Your task to perform on an android device: allow cookies in the chrome app Image 0: 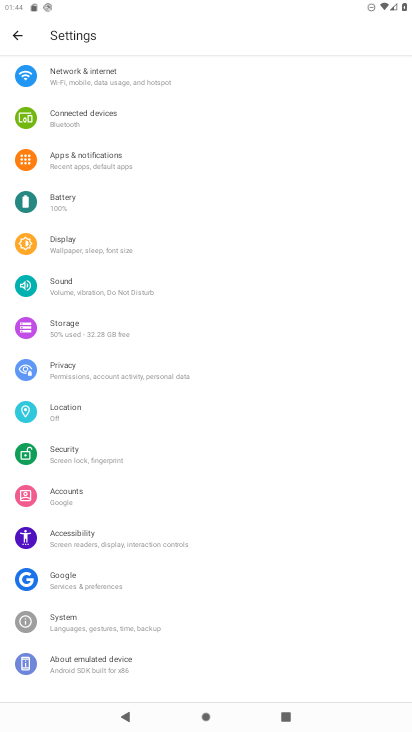
Step 0: click (20, 32)
Your task to perform on an android device: allow cookies in the chrome app Image 1: 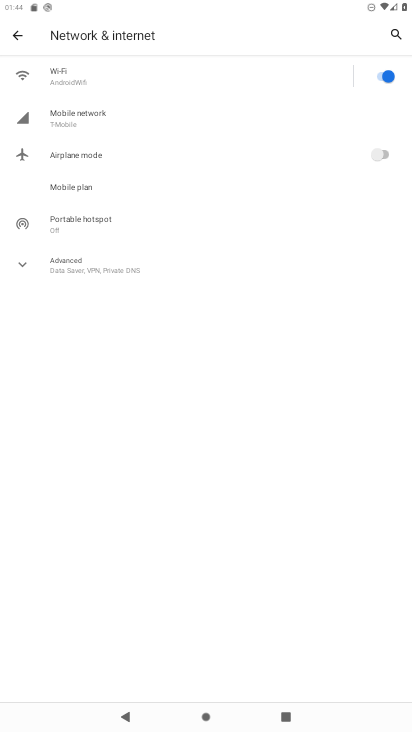
Step 1: click (20, 32)
Your task to perform on an android device: allow cookies in the chrome app Image 2: 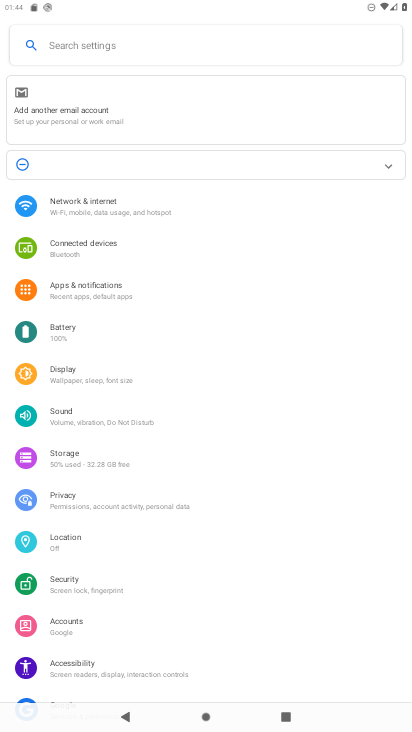
Step 2: click (20, 32)
Your task to perform on an android device: allow cookies in the chrome app Image 3: 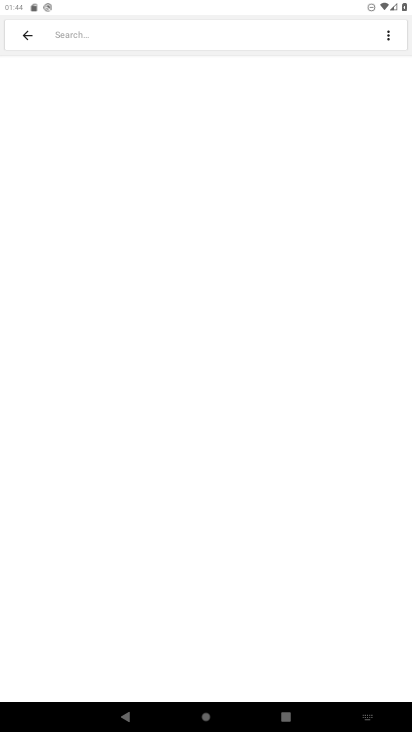
Step 3: press back button
Your task to perform on an android device: allow cookies in the chrome app Image 4: 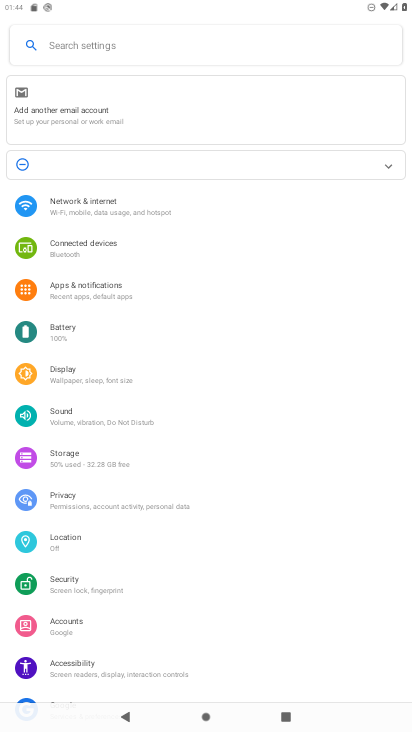
Step 4: press back button
Your task to perform on an android device: allow cookies in the chrome app Image 5: 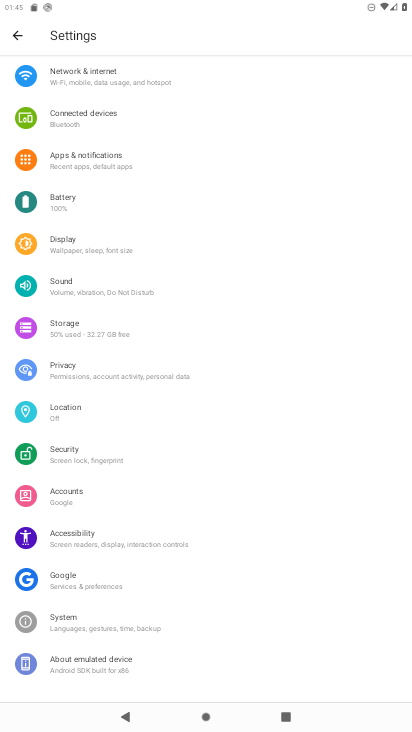
Step 5: press home button
Your task to perform on an android device: allow cookies in the chrome app Image 6: 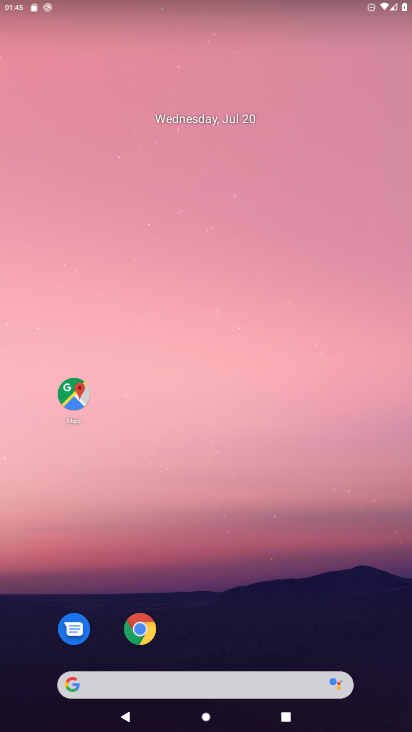
Step 6: click (139, 631)
Your task to perform on an android device: allow cookies in the chrome app Image 7: 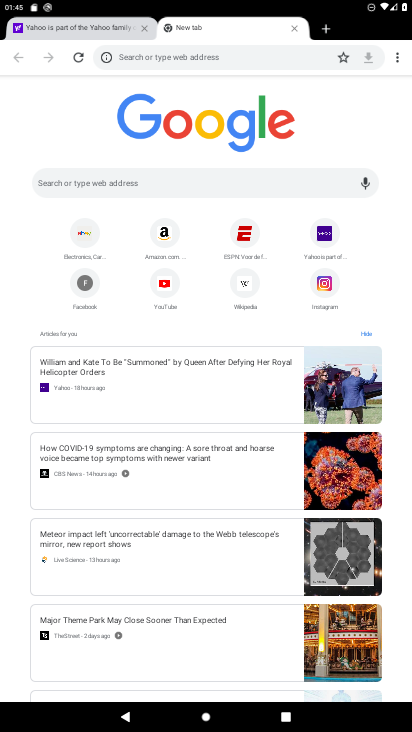
Step 7: click (401, 55)
Your task to perform on an android device: allow cookies in the chrome app Image 8: 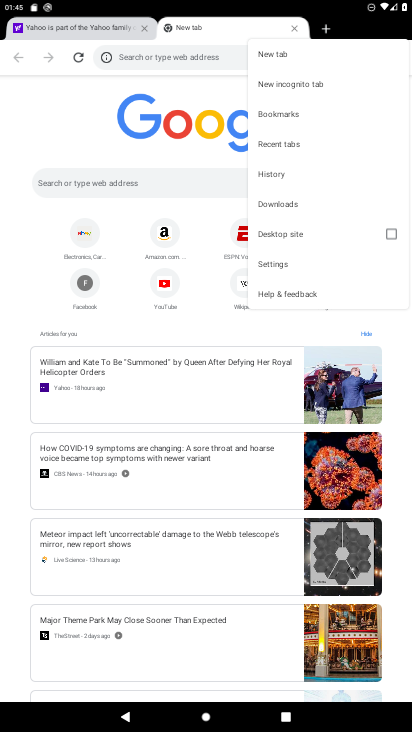
Step 8: click (274, 267)
Your task to perform on an android device: allow cookies in the chrome app Image 9: 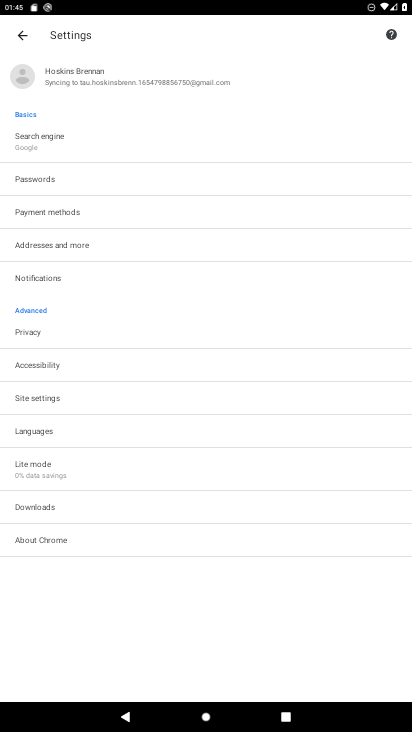
Step 9: click (32, 398)
Your task to perform on an android device: allow cookies in the chrome app Image 10: 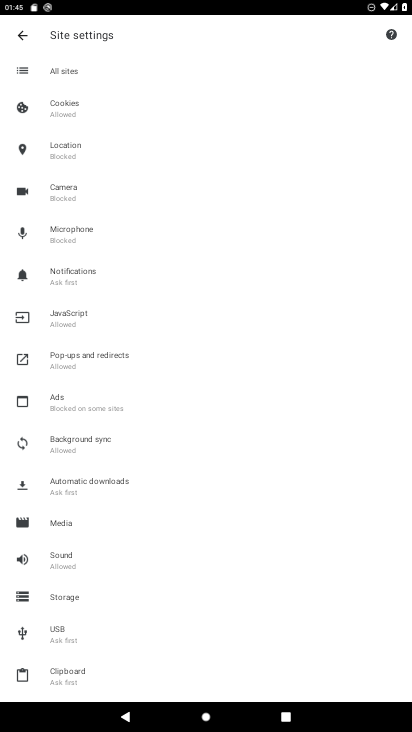
Step 10: click (63, 100)
Your task to perform on an android device: allow cookies in the chrome app Image 11: 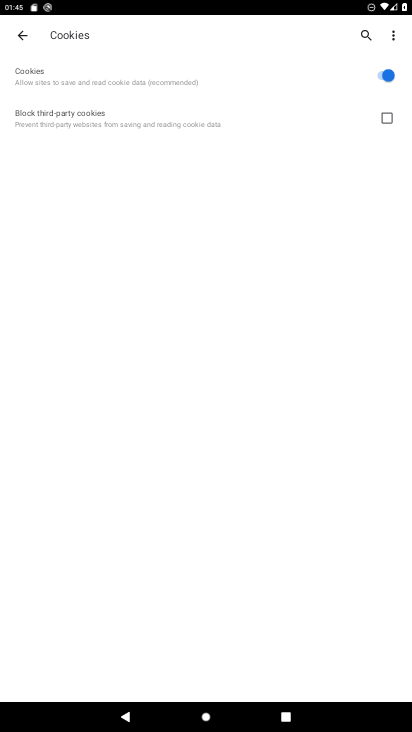
Step 11: task complete